Your task to perform on an android device: show emergency info Image 0: 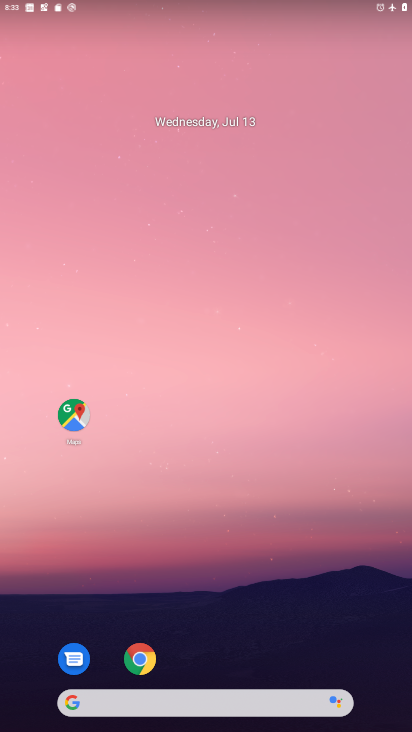
Step 0: drag from (228, 573) to (254, 109)
Your task to perform on an android device: show emergency info Image 1: 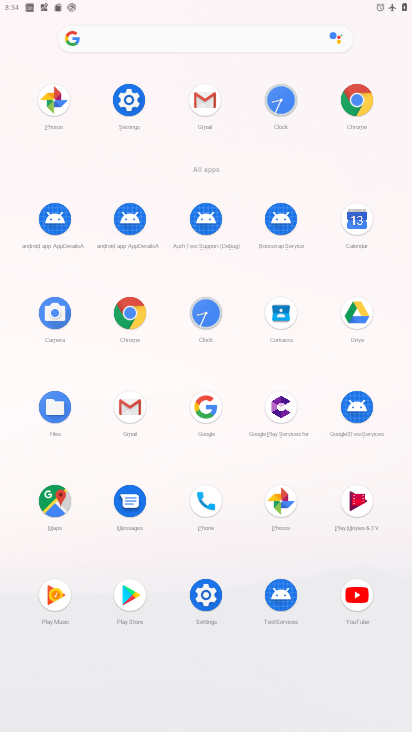
Step 1: click (126, 100)
Your task to perform on an android device: show emergency info Image 2: 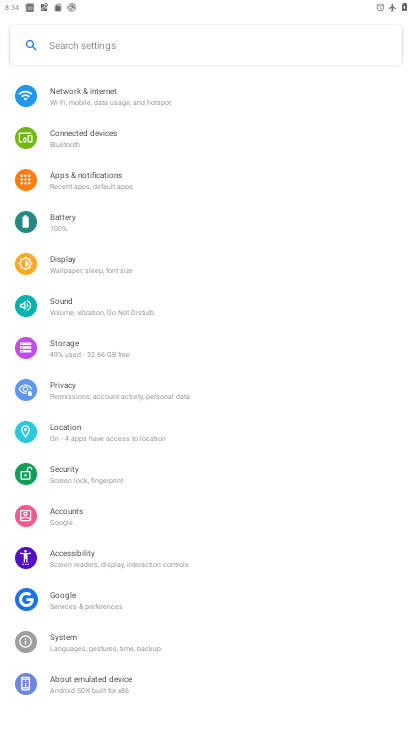
Step 2: click (101, 673)
Your task to perform on an android device: show emergency info Image 3: 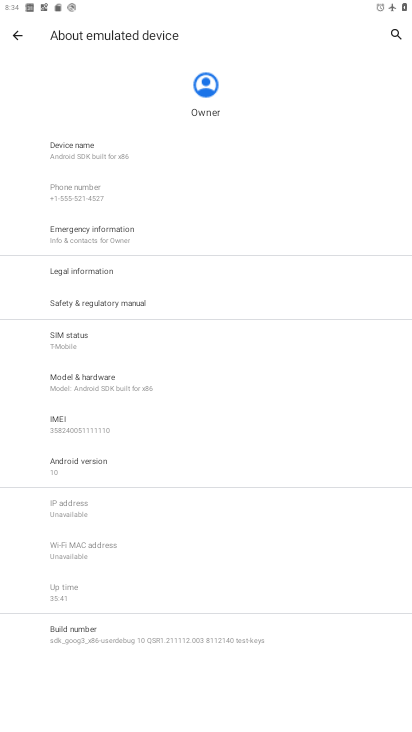
Step 3: click (113, 232)
Your task to perform on an android device: show emergency info Image 4: 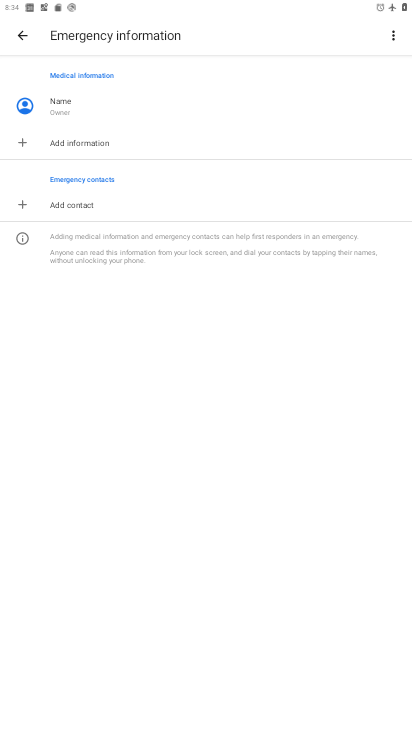
Step 4: task complete